Your task to perform on an android device: What's the weather going to be this weekend? Image 0: 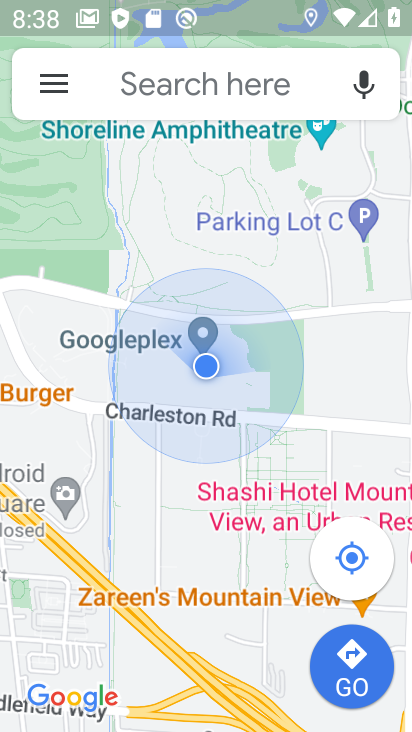
Step 0: press home button
Your task to perform on an android device: What's the weather going to be this weekend? Image 1: 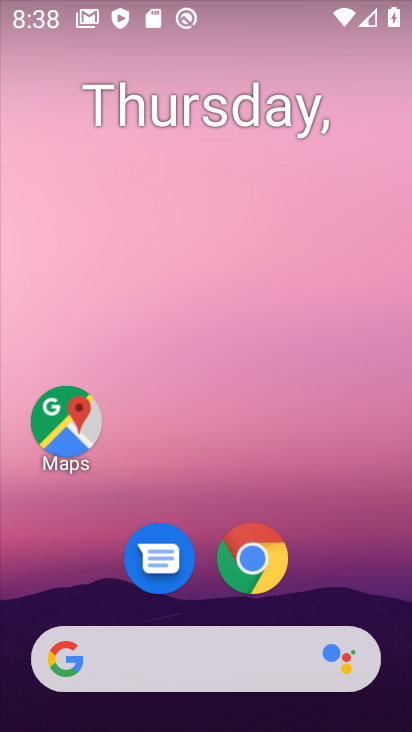
Step 1: drag from (13, 166) to (411, 184)
Your task to perform on an android device: What's the weather going to be this weekend? Image 2: 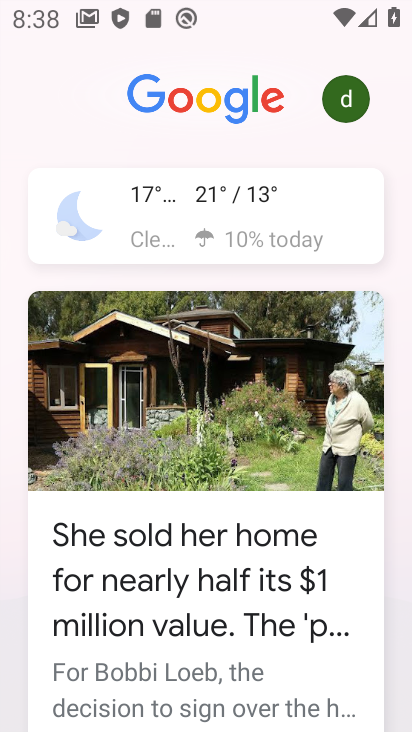
Step 2: click (227, 212)
Your task to perform on an android device: What's the weather going to be this weekend? Image 3: 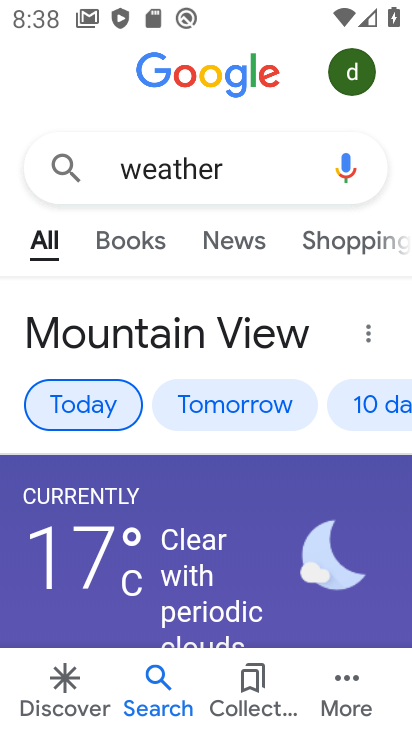
Step 3: click (363, 385)
Your task to perform on an android device: What's the weather going to be this weekend? Image 4: 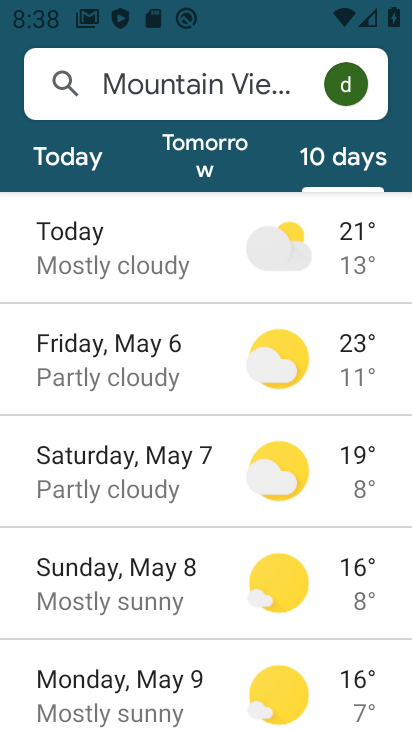
Step 4: task complete